Your task to perform on an android device: Open Google Maps and go to "Timeline" Image 0: 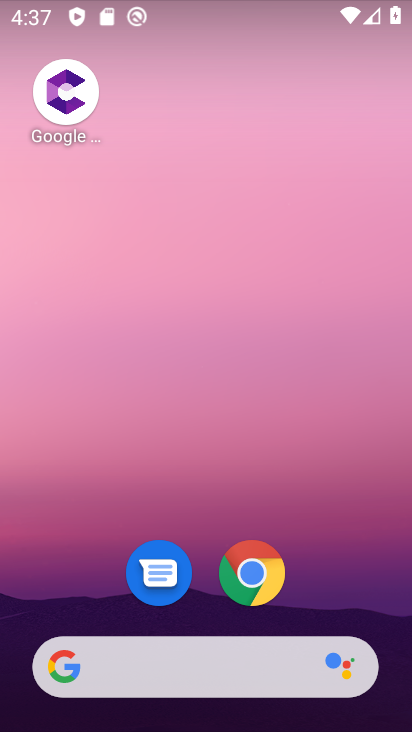
Step 0: drag from (206, 638) to (196, 238)
Your task to perform on an android device: Open Google Maps and go to "Timeline" Image 1: 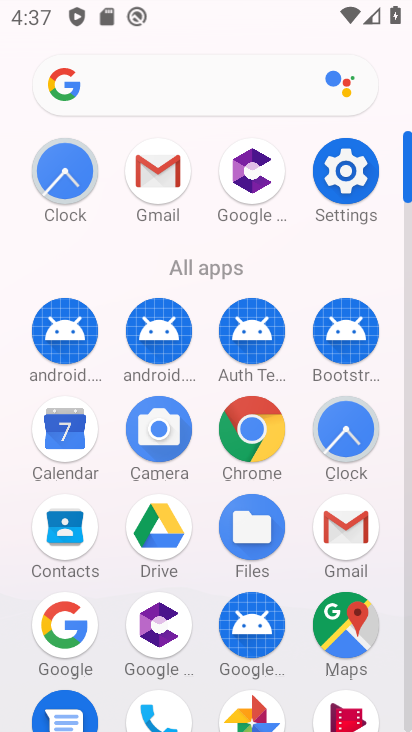
Step 1: click (372, 613)
Your task to perform on an android device: Open Google Maps and go to "Timeline" Image 2: 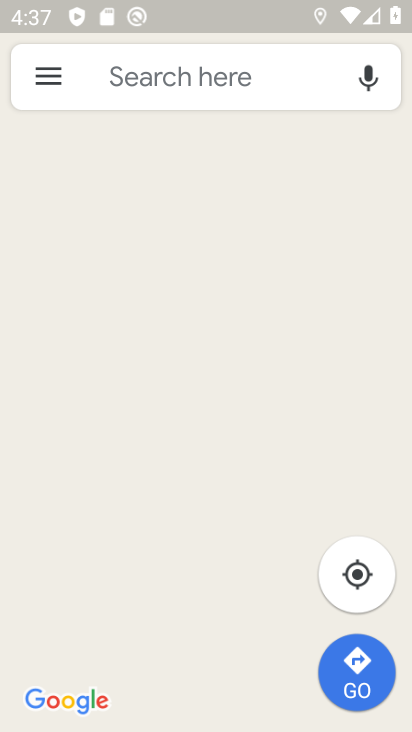
Step 2: click (57, 73)
Your task to perform on an android device: Open Google Maps and go to "Timeline" Image 3: 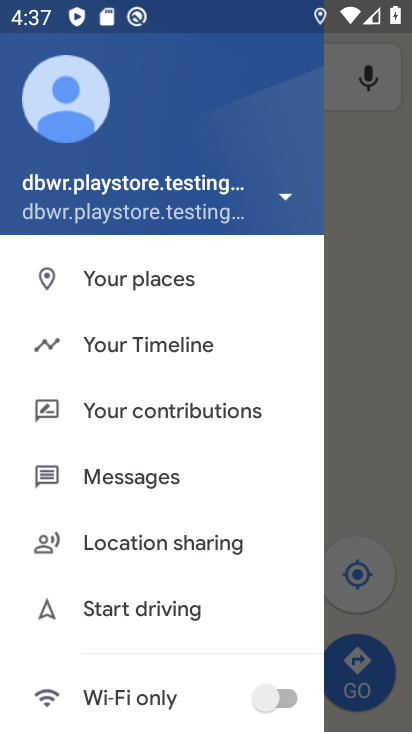
Step 3: click (115, 347)
Your task to perform on an android device: Open Google Maps and go to "Timeline" Image 4: 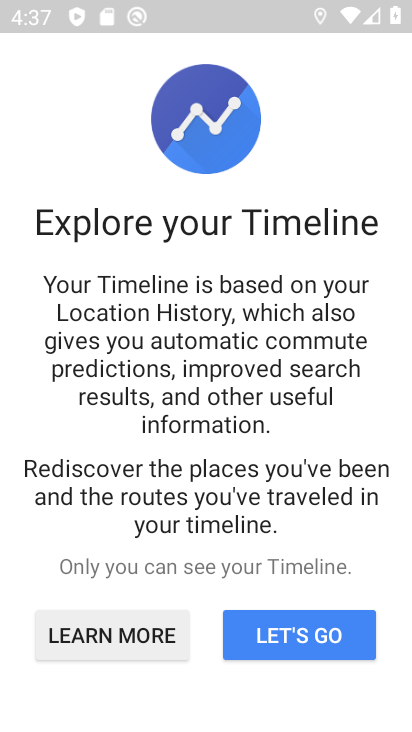
Step 4: click (322, 649)
Your task to perform on an android device: Open Google Maps and go to "Timeline" Image 5: 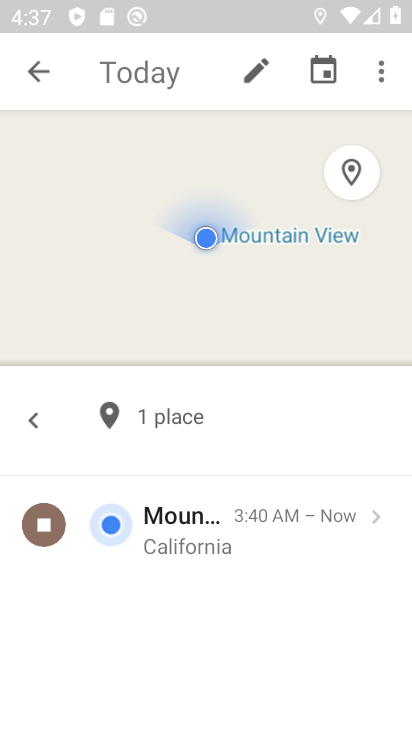
Step 5: task complete